Your task to perform on an android device: toggle notification dots Image 0: 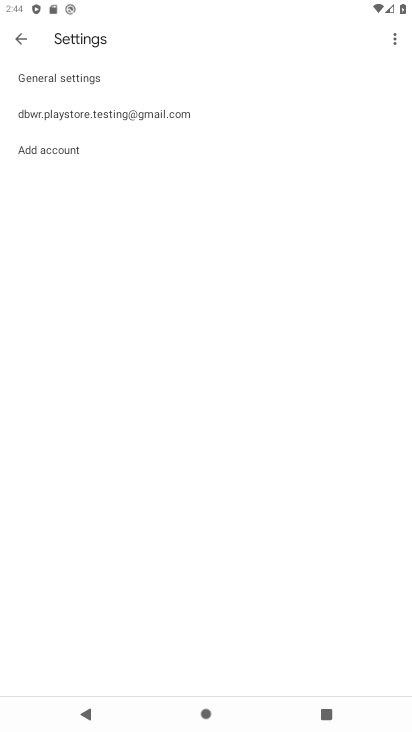
Step 0: press home button
Your task to perform on an android device: toggle notification dots Image 1: 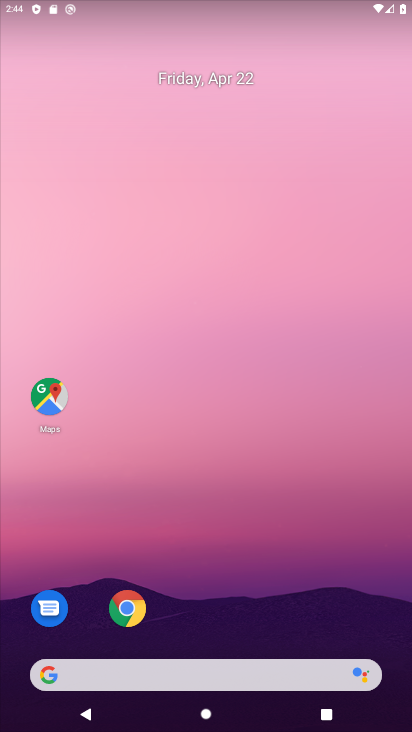
Step 1: drag from (222, 644) to (289, 22)
Your task to perform on an android device: toggle notification dots Image 2: 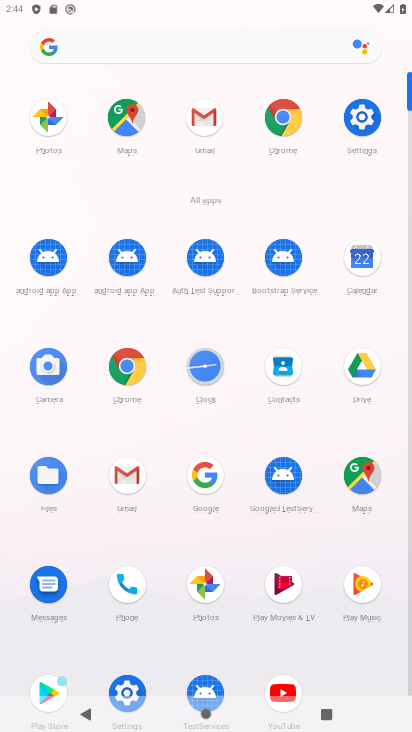
Step 2: click (126, 687)
Your task to perform on an android device: toggle notification dots Image 3: 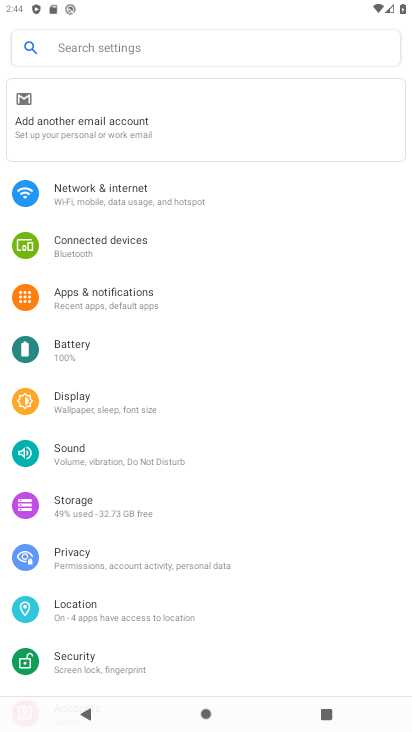
Step 3: click (112, 285)
Your task to perform on an android device: toggle notification dots Image 4: 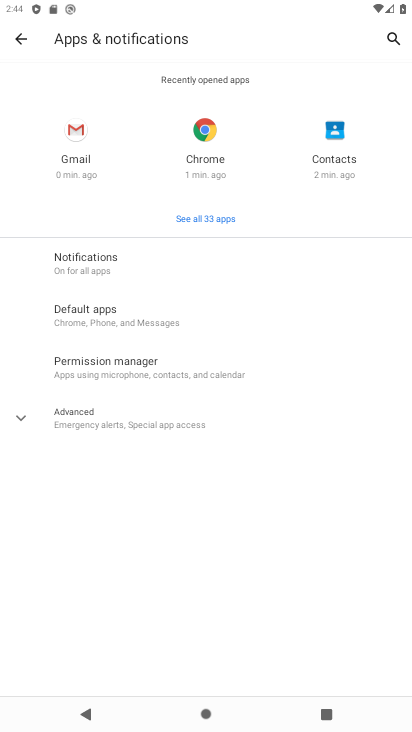
Step 4: click (84, 259)
Your task to perform on an android device: toggle notification dots Image 5: 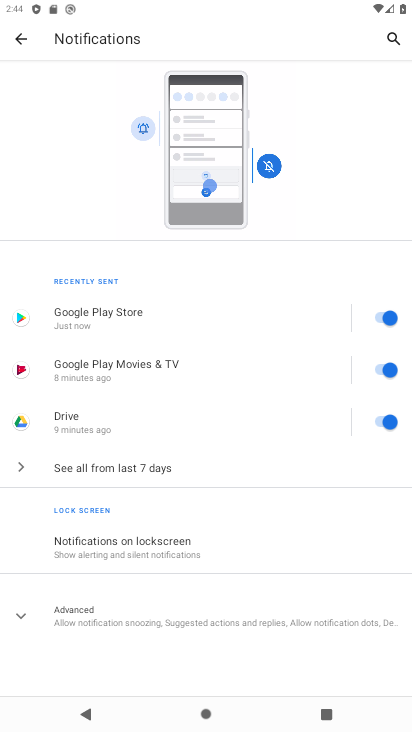
Step 5: click (97, 612)
Your task to perform on an android device: toggle notification dots Image 6: 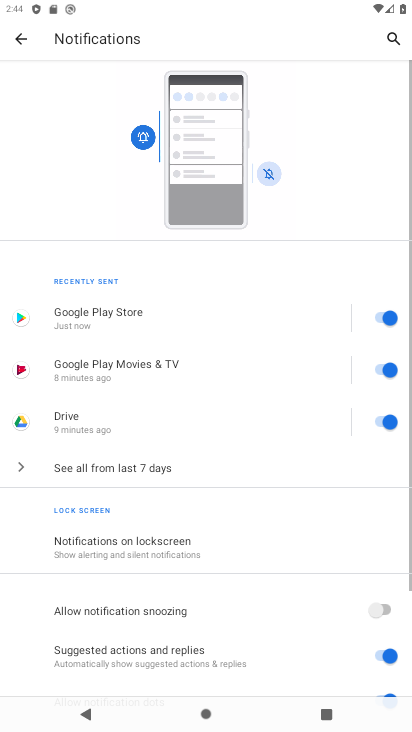
Step 6: drag from (97, 612) to (94, 126)
Your task to perform on an android device: toggle notification dots Image 7: 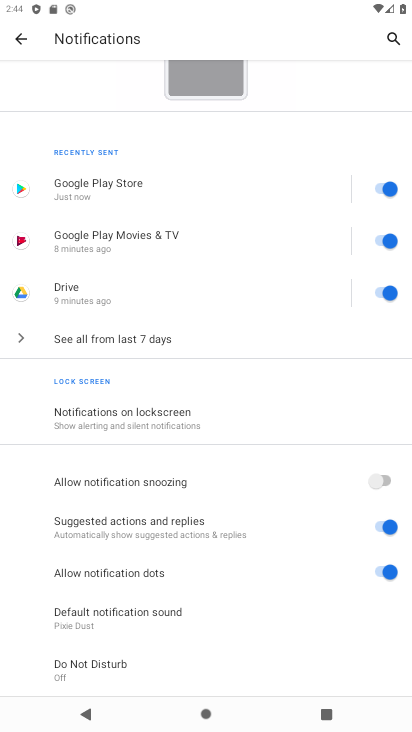
Step 7: click (374, 578)
Your task to perform on an android device: toggle notification dots Image 8: 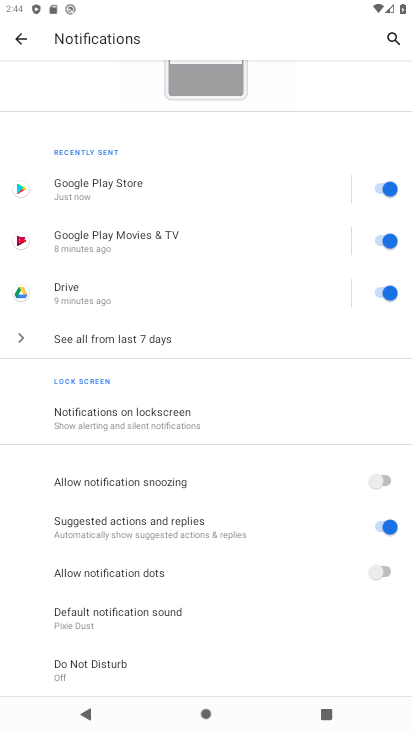
Step 8: task complete